Your task to perform on an android device: Open Google Maps Image 0: 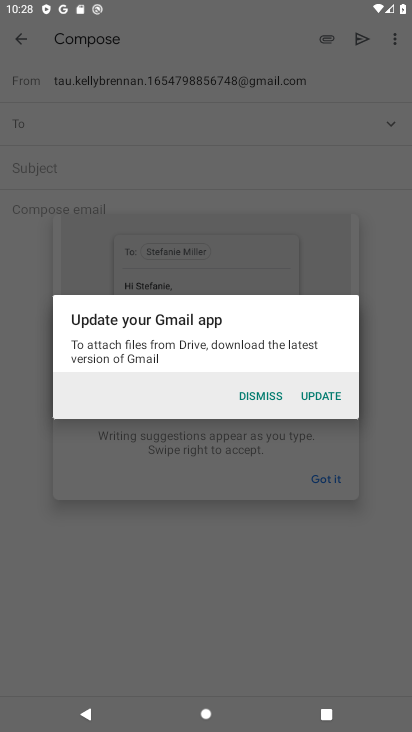
Step 0: press home button
Your task to perform on an android device: Open Google Maps Image 1: 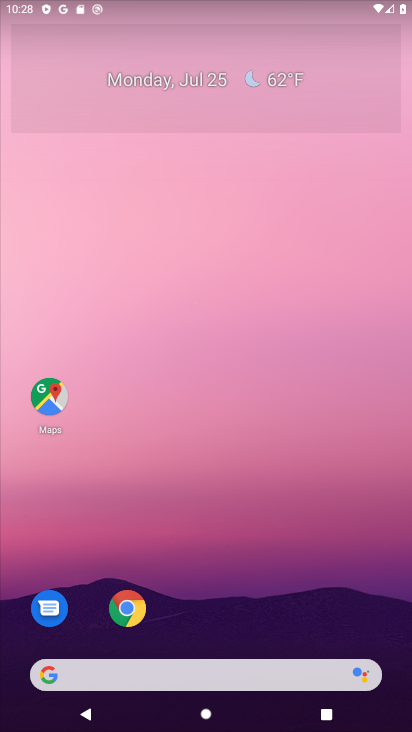
Step 1: click (57, 401)
Your task to perform on an android device: Open Google Maps Image 2: 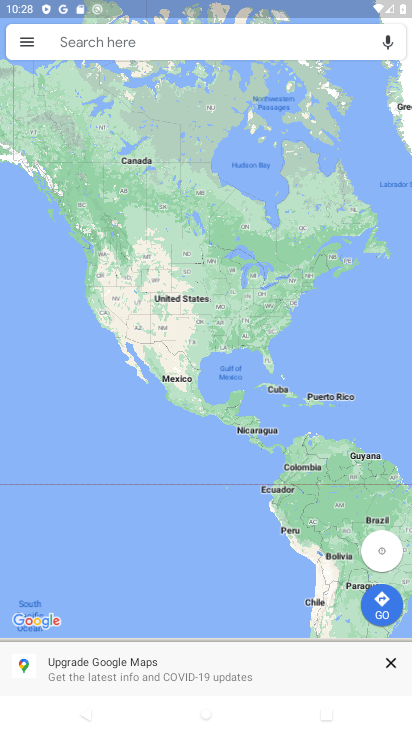
Step 2: task complete